Your task to perform on an android device: turn off location Image 0: 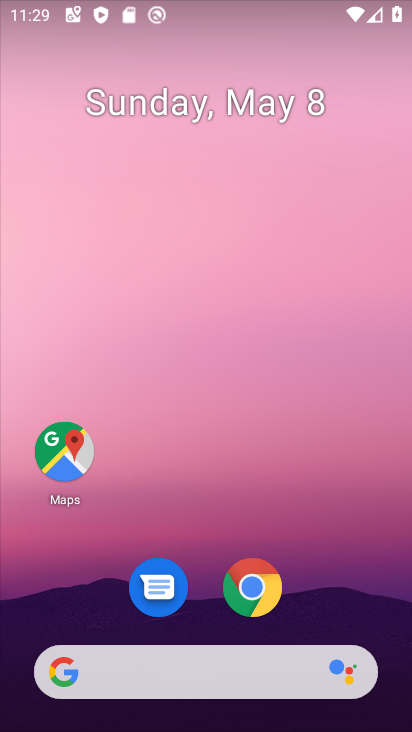
Step 0: drag from (396, 638) to (68, 0)
Your task to perform on an android device: turn off location Image 1: 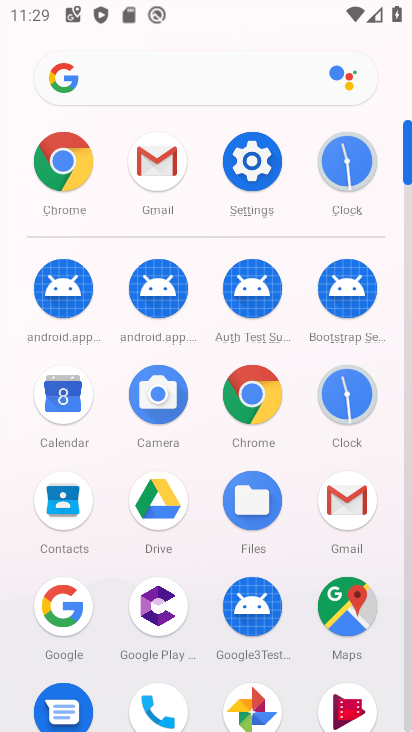
Step 1: click (240, 167)
Your task to perform on an android device: turn off location Image 2: 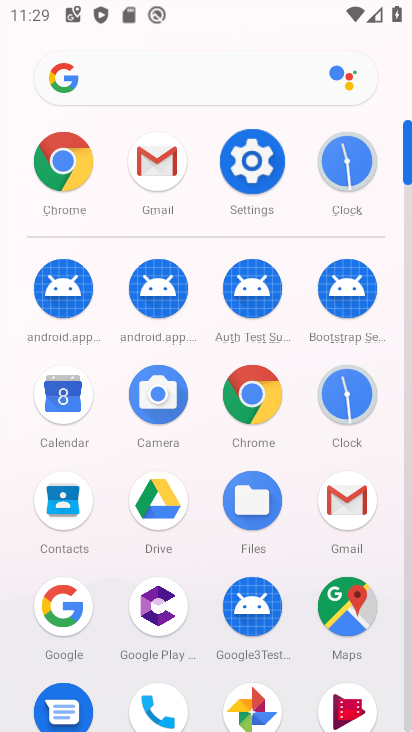
Step 2: click (238, 168)
Your task to perform on an android device: turn off location Image 3: 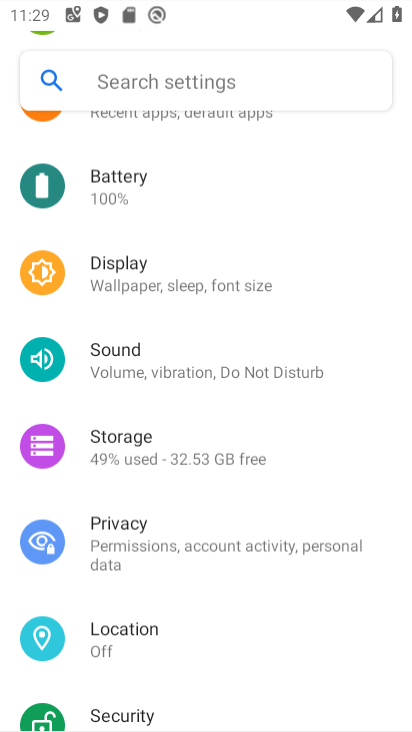
Step 3: click (238, 168)
Your task to perform on an android device: turn off location Image 4: 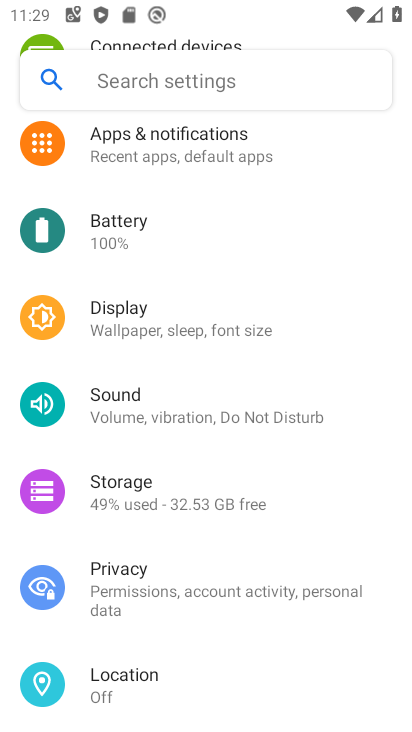
Step 4: click (237, 168)
Your task to perform on an android device: turn off location Image 5: 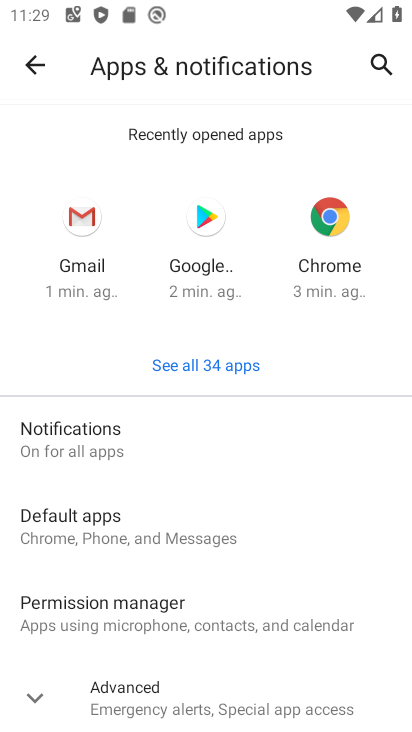
Step 5: click (29, 60)
Your task to perform on an android device: turn off location Image 6: 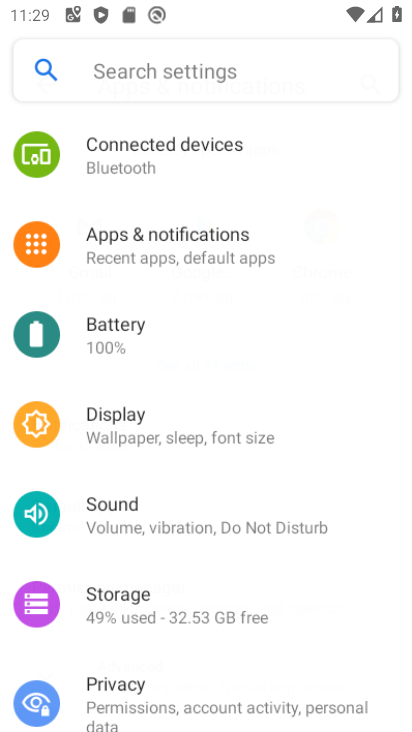
Step 6: click (29, 60)
Your task to perform on an android device: turn off location Image 7: 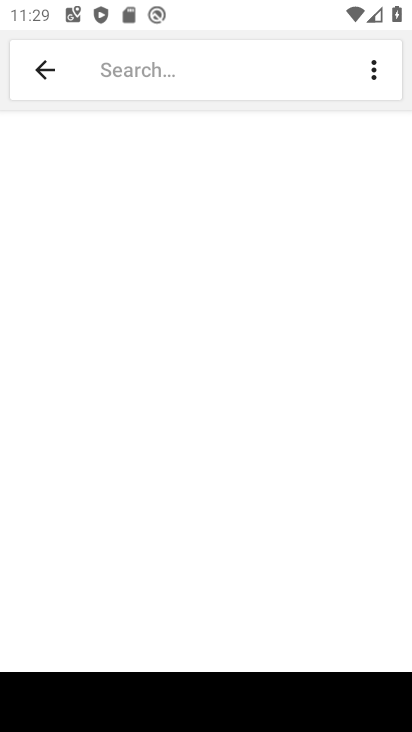
Step 7: click (49, 80)
Your task to perform on an android device: turn off location Image 8: 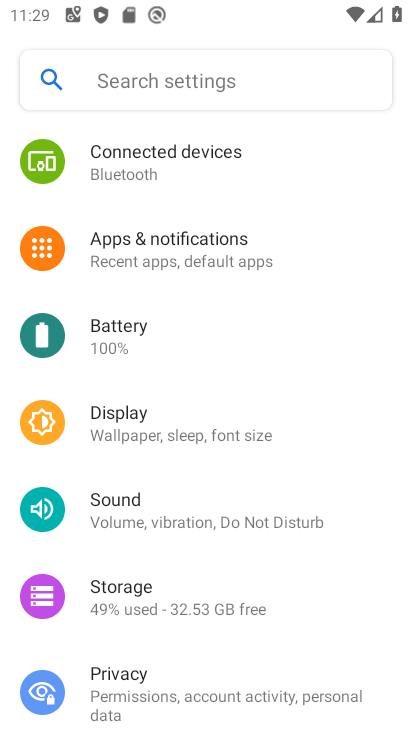
Step 8: drag from (175, 610) to (99, 188)
Your task to perform on an android device: turn off location Image 9: 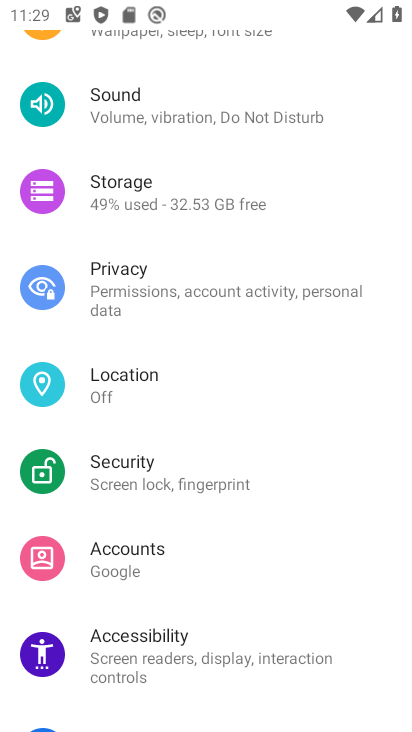
Step 9: drag from (209, 497) to (202, 165)
Your task to perform on an android device: turn off location Image 10: 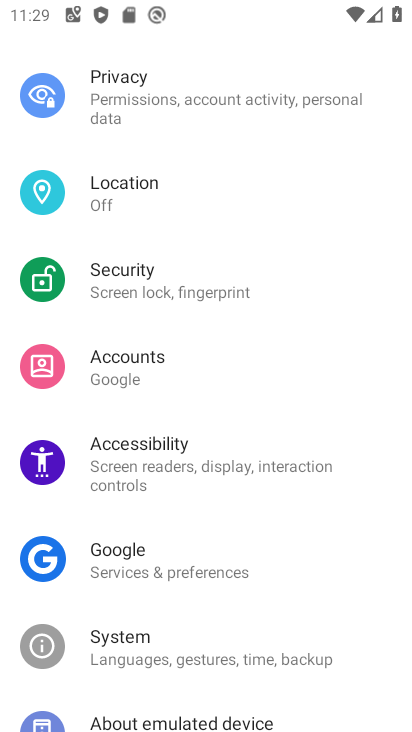
Step 10: drag from (235, 622) to (273, 218)
Your task to perform on an android device: turn off location Image 11: 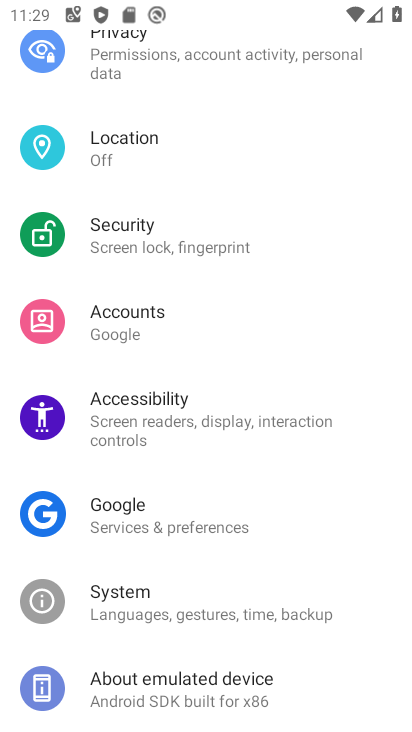
Step 11: click (120, 150)
Your task to perform on an android device: turn off location Image 12: 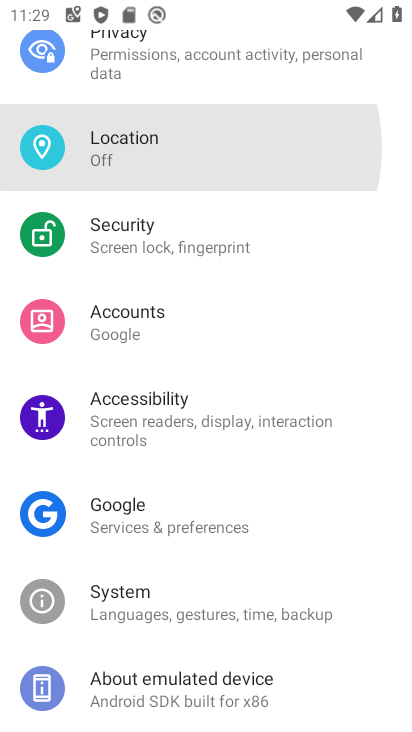
Step 12: click (120, 150)
Your task to perform on an android device: turn off location Image 13: 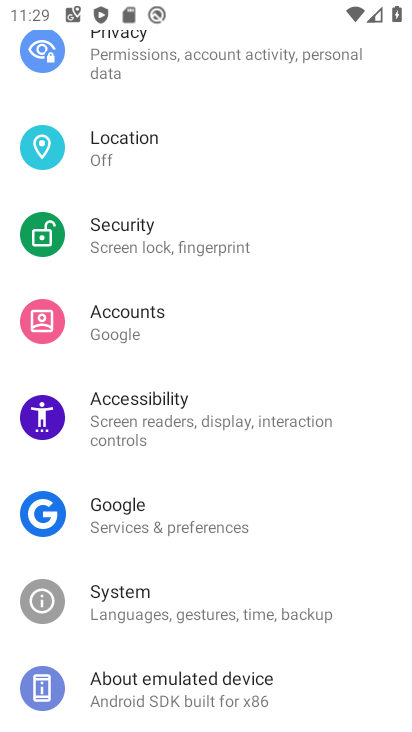
Step 13: click (121, 149)
Your task to perform on an android device: turn off location Image 14: 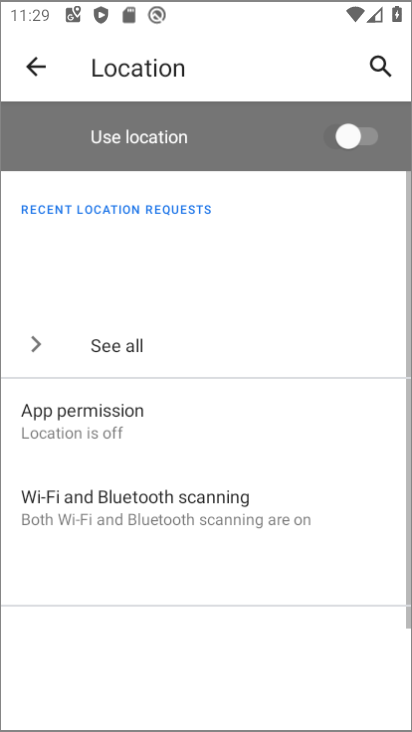
Step 14: click (121, 149)
Your task to perform on an android device: turn off location Image 15: 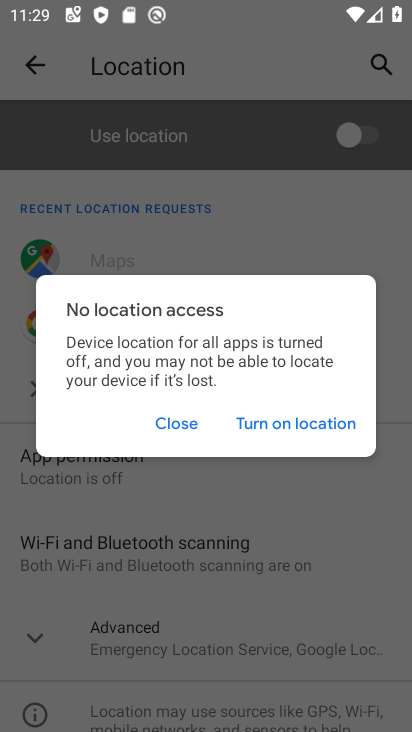
Step 15: click (160, 410)
Your task to perform on an android device: turn off location Image 16: 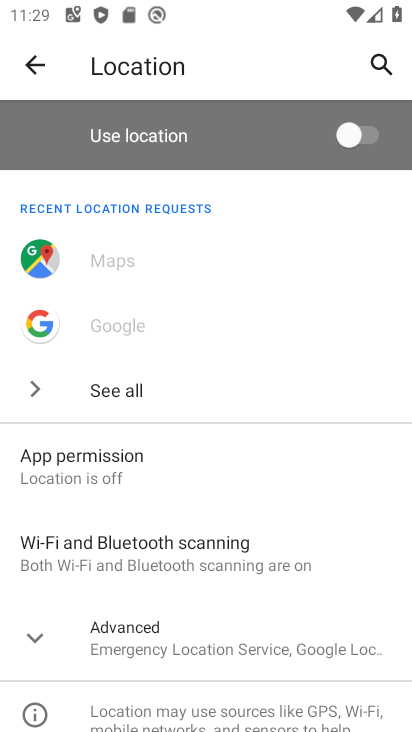
Step 16: task complete